Your task to perform on an android device: empty trash in google photos Image 0: 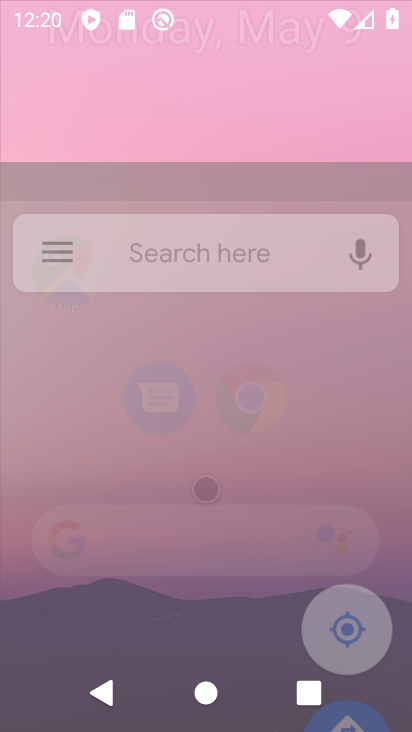
Step 0: drag from (398, 556) to (328, 153)
Your task to perform on an android device: empty trash in google photos Image 1: 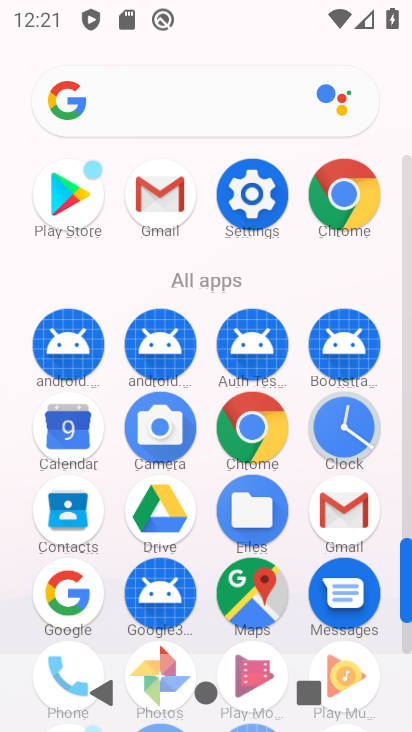
Step 1: click (158, 646)
Your task to perform on an android device: empty trash in google photos Image 2: 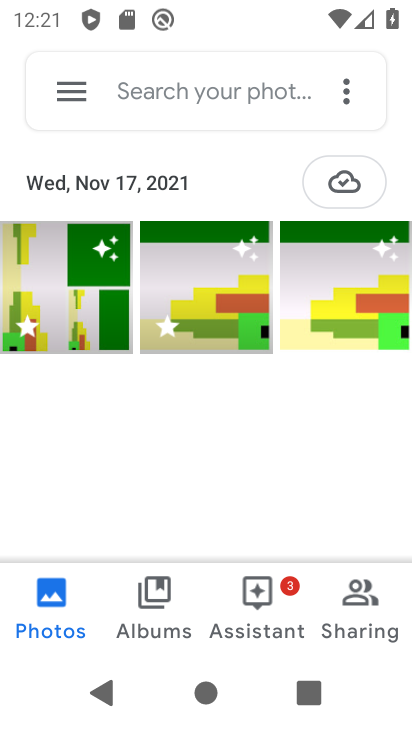
Step 2: click (69, 98)
Your task to perform on an android device: empty trash in google photos Image 3: 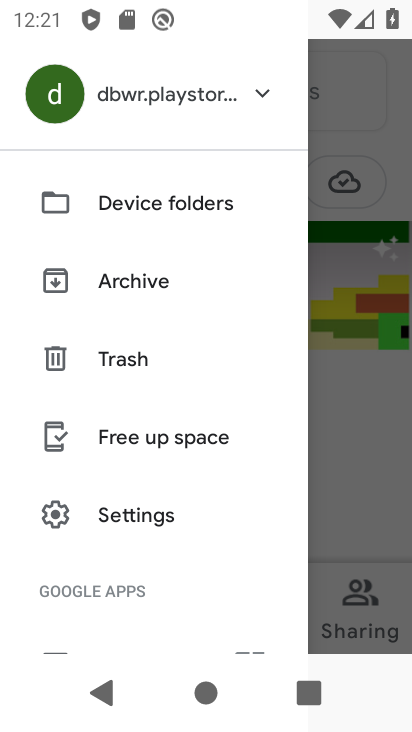
Step 3: click (148, 355)
Your task to perform on an android device: empty trash in google photos Image 4: 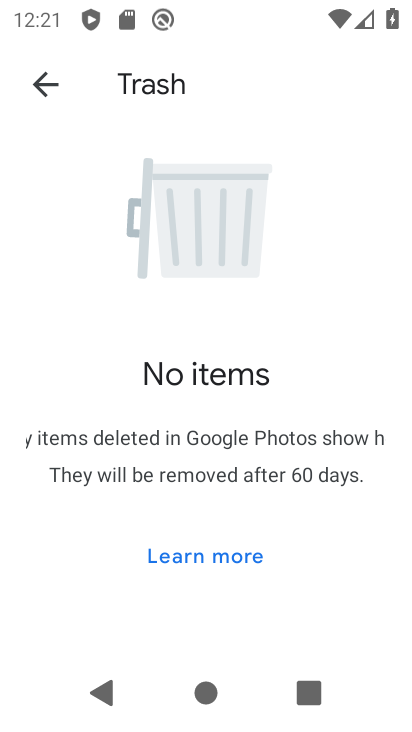
Step 4: task complete